Your task to perform on an android device: turn off smart reply in the gmail app Image 0: 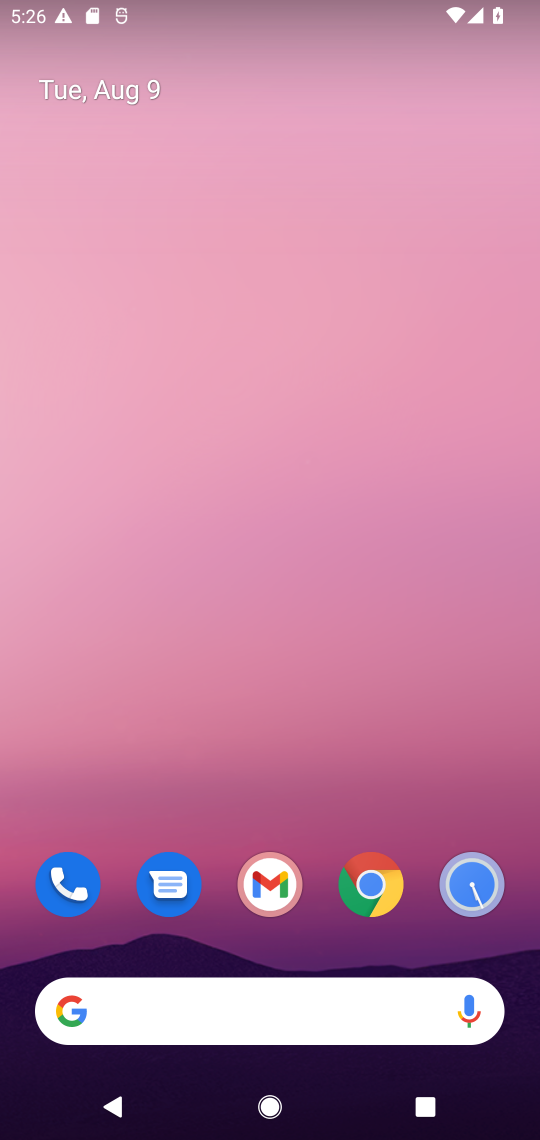
Step 0: drag from (230, 1016) to (330, 115)
Your task to perform on an android device: turn off smart reply in the gmail app Image 1: 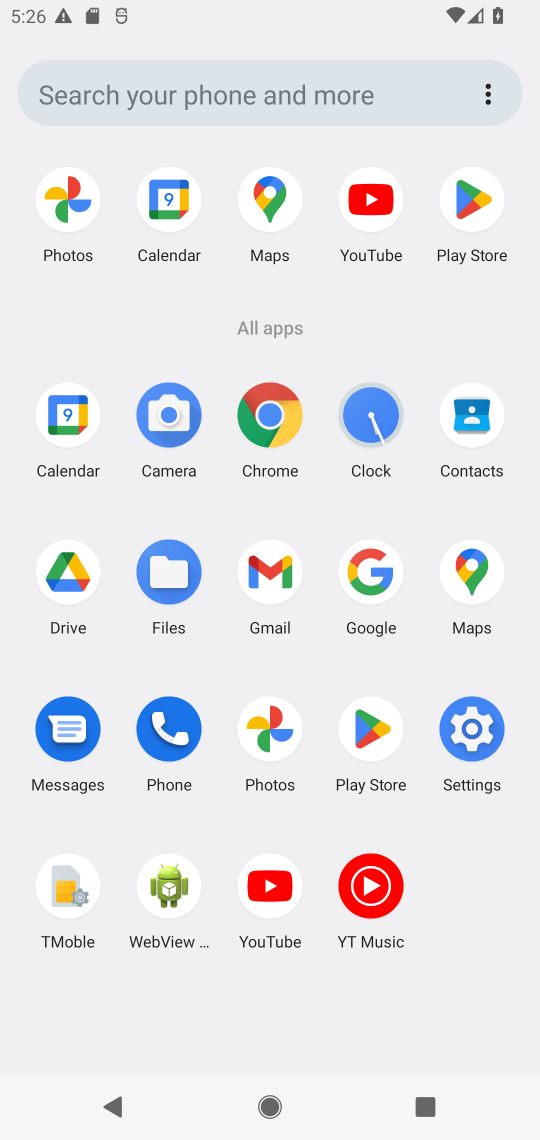
Step 1: click (273, 574)
Your task to perform on an android device: turn off smart reply in the gmail app Image 2: 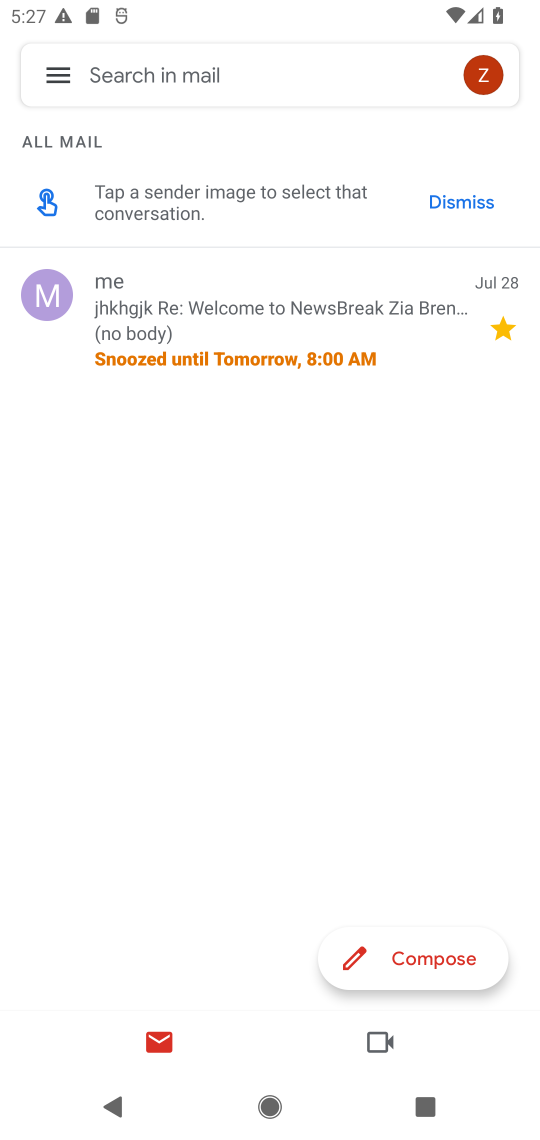
Step 2: click (72, 77)
Your task to perform on an android device: turn off smart reply in the gmail app Image 3: 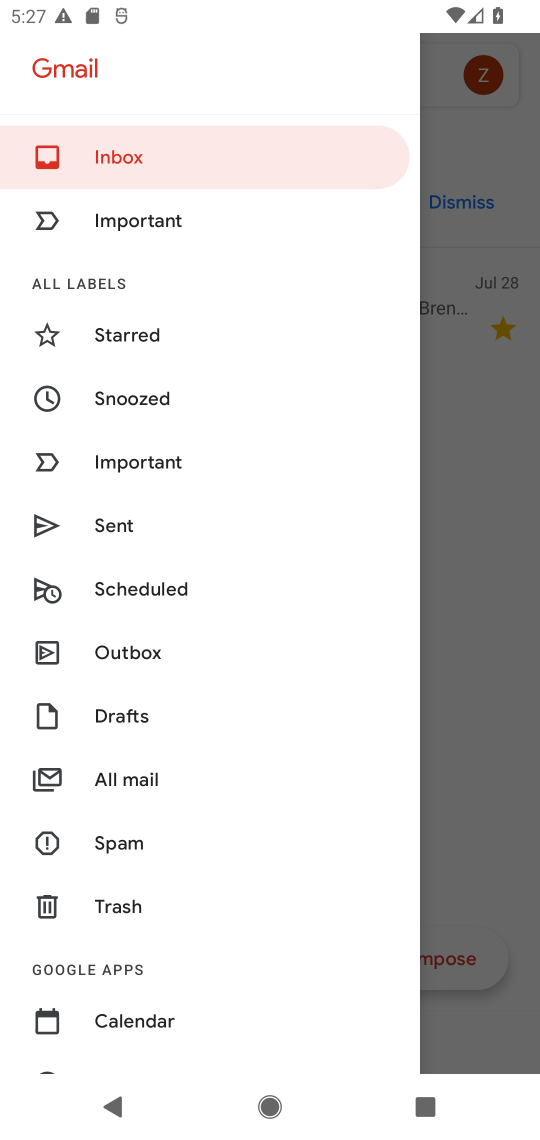
Step 3: drag from (149, 877) to (225, 586)
Your task to perform on an android device: turn off smart reply in the gmail app Image 4: 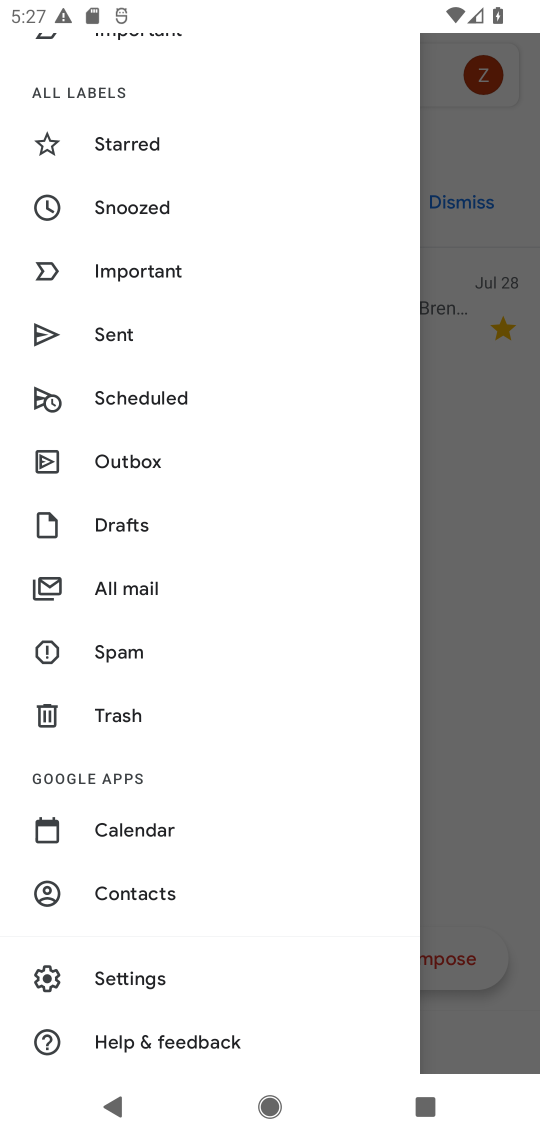
Step 4: click (142, 973)
Your task to perform on an android device: turn off smart reply in the gmail app Image 5: 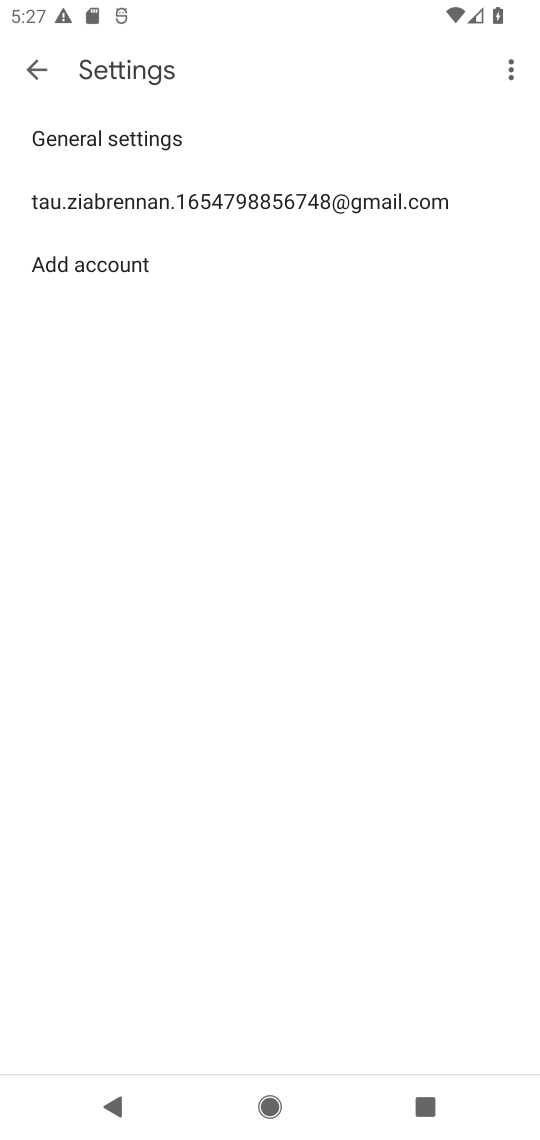
Step 5: click (211, 202)
Your task to perform on an android device: turn off smart reply in the gmail app Image 6: 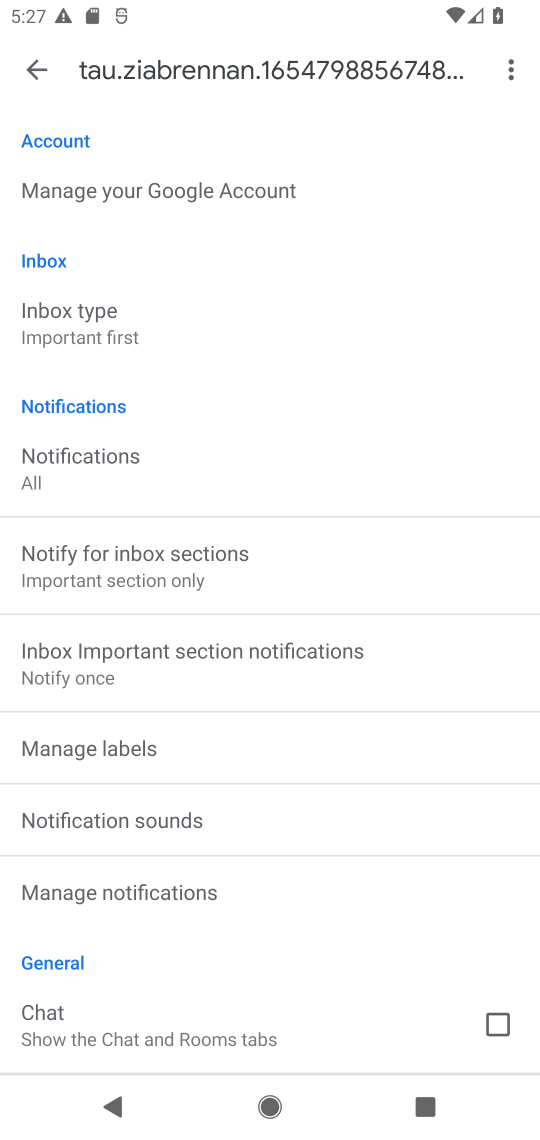
Step 6: drag from (206, 743) to (317, 581)
Your task to perform on an android device: turn off smart reply in the gmail app Image 7: 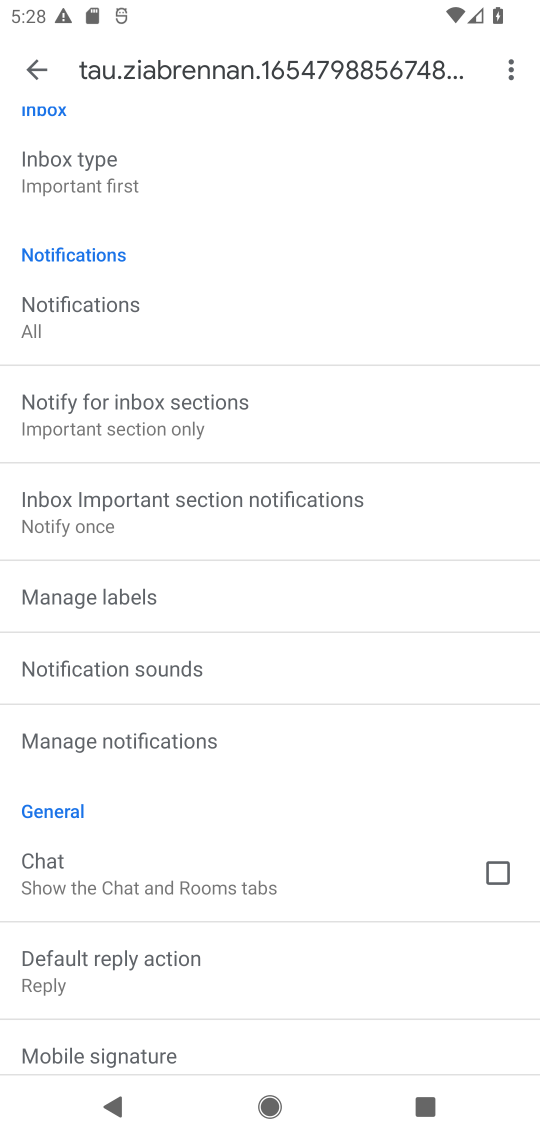
Step 7: drag from (180, 926) to (221, 703)
Your task to perform on an android device: turn off smart reply in the gmail app Image 8: 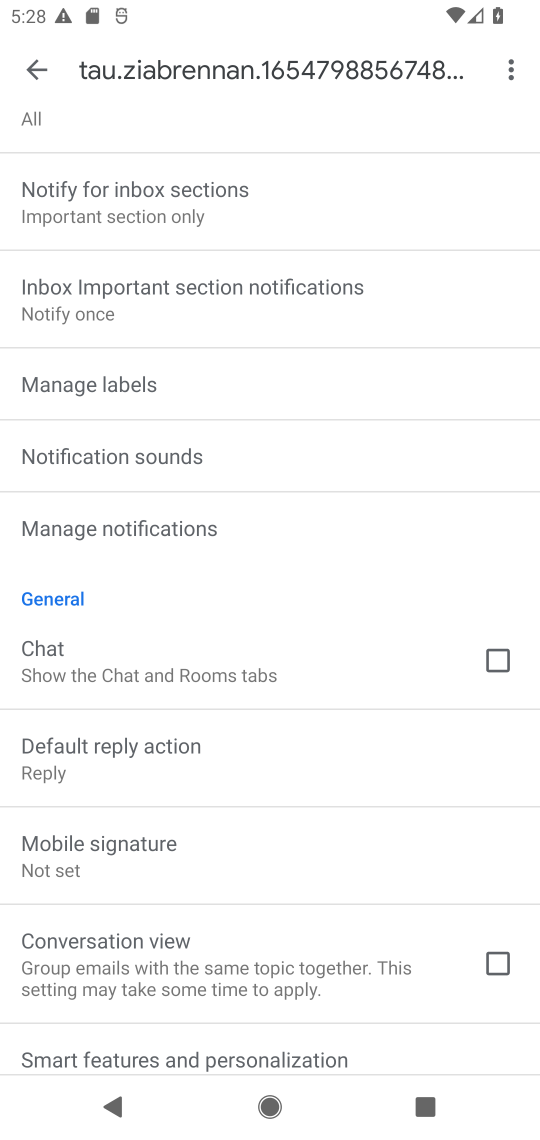
Step 8: drag from (189, 889) to (259, 616)
Your task to perform on an android device: turn off smart reply in the gmail app Image 9: 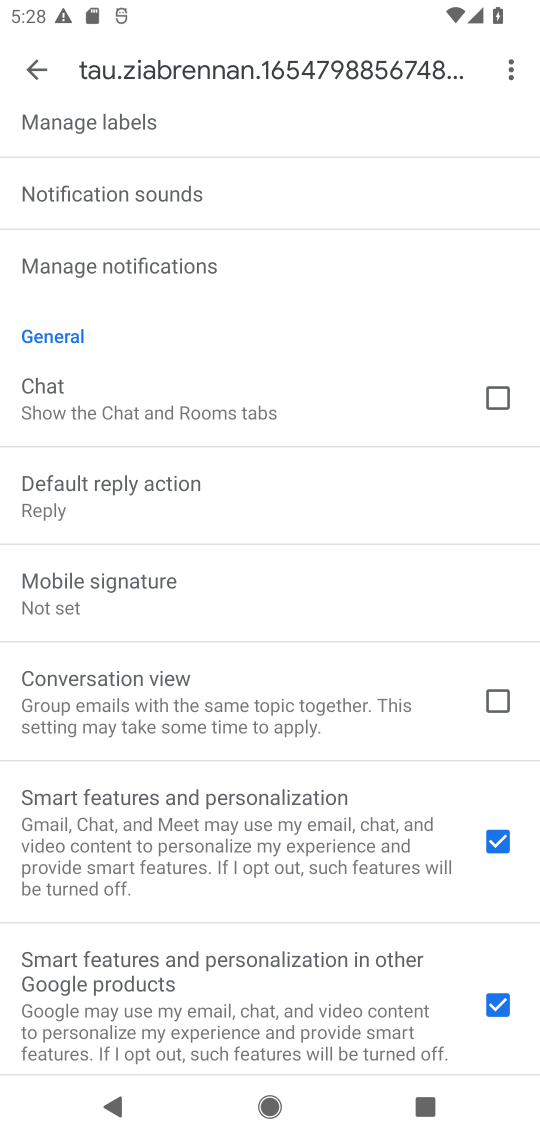
Step 9: drag from (224, 956) to (331, 728)
Your task to perform on an android device: turn off smart reply in the gmail app Image 10: 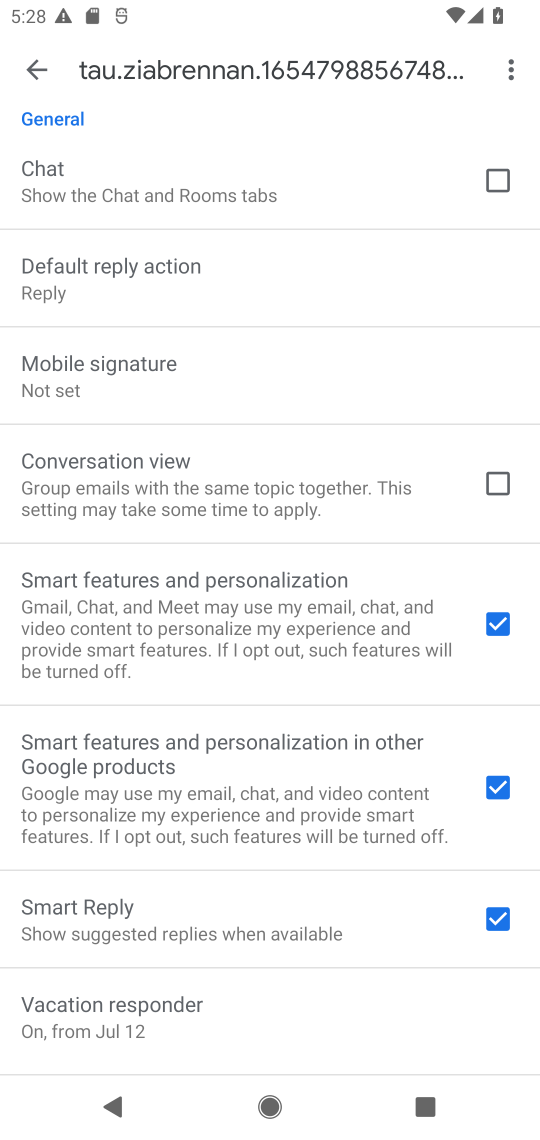
Step 10: drag from (177, 944) to (318, 760)
Your task to perform on an android device: turn off smart reply in the gmail app Image 11: 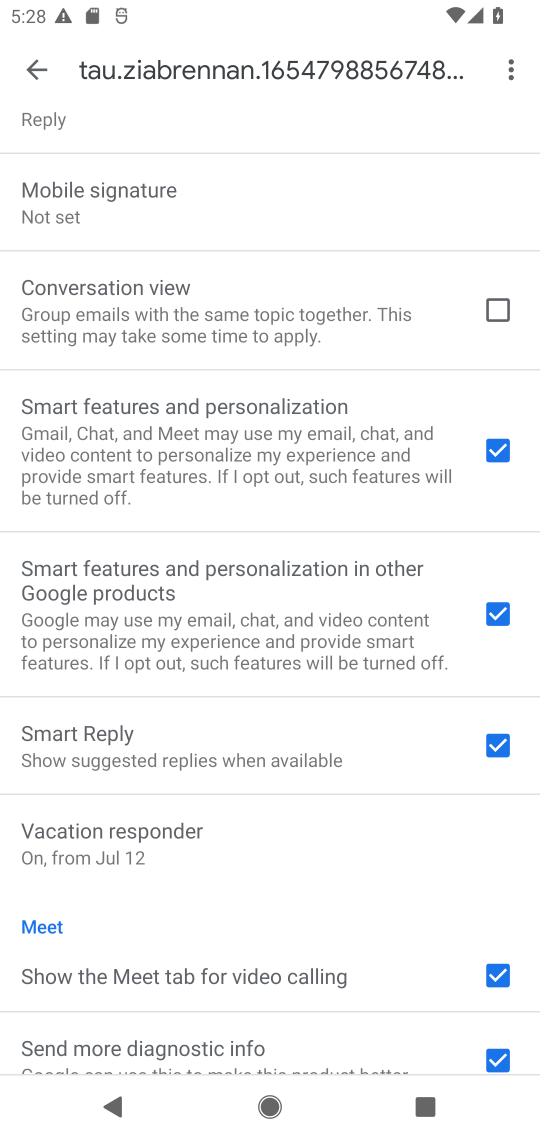
Step 11: click (485, 742)
Your task to perform on an android device: turn off smart reply in the gmail app Image 12: 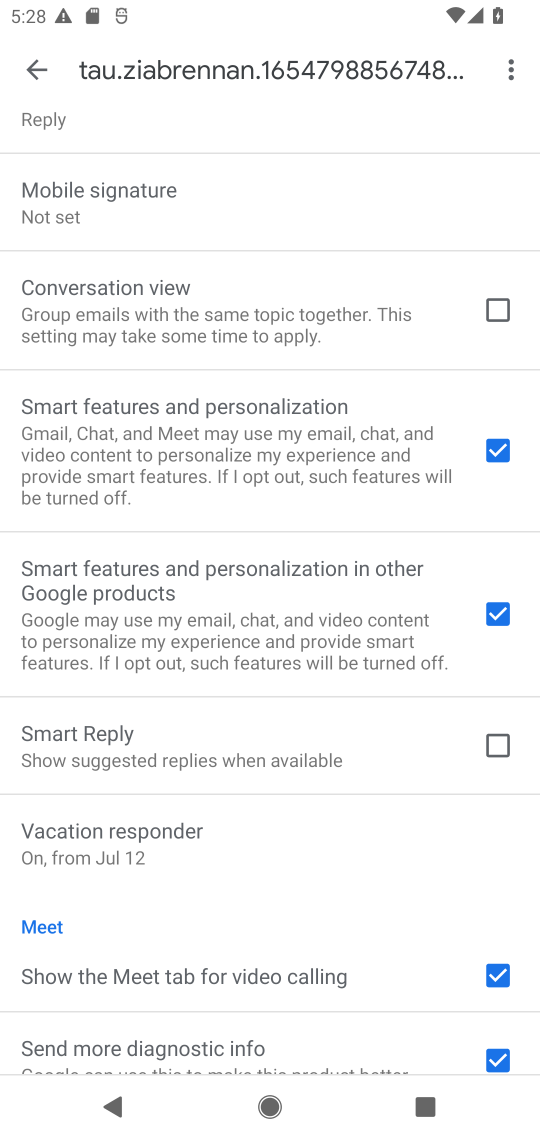
Step 12: task complete